Your task to perform on an android device: show emergency info Image 0: 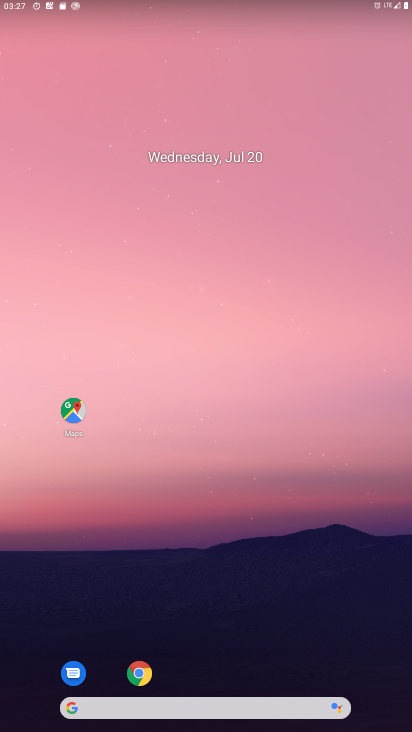
Step 0: drag from (187, 654) to (209, 29)
Your task to perform on an android device: show emergency info Image 1: 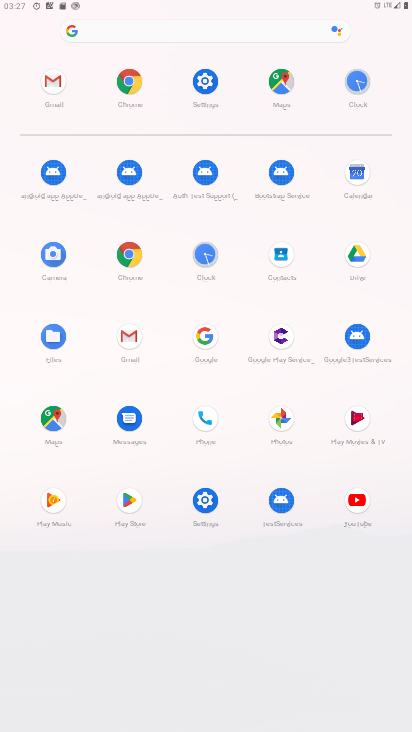
Step 1: click (207, 514)
Your task to perform on an android device: show emergency info Image 2: 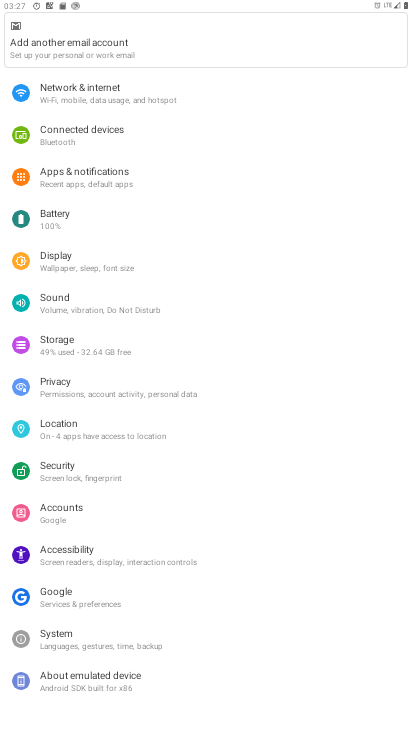
Step 2: click (75, 689)
Your task to perform on an android device: show emergency info Image 3: 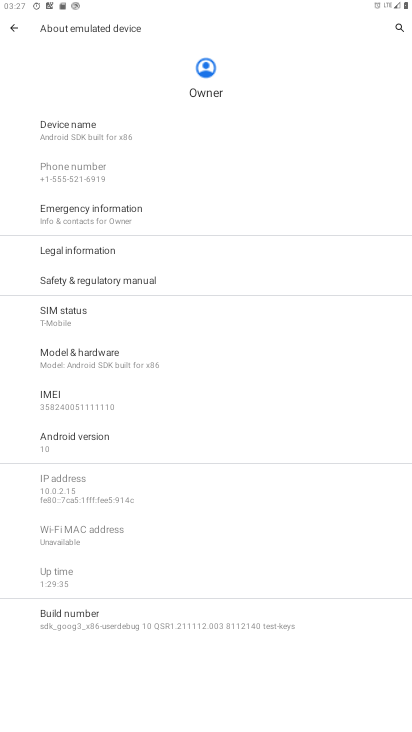
Step 3: click (117, 212)
Your task to perform on an android device: show emergency info Image 4: 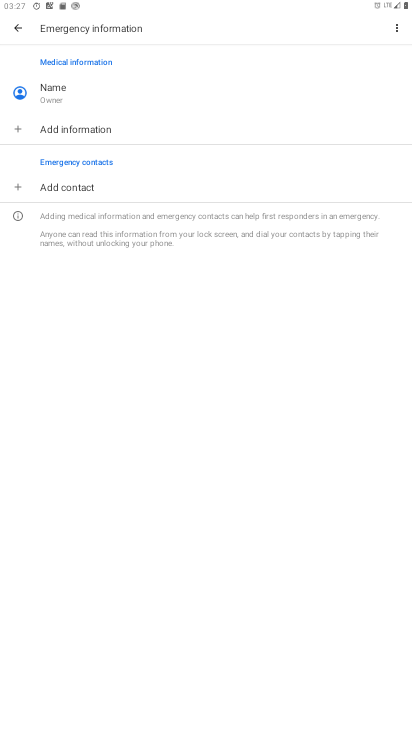
Step 4: task complete